Your task to perform on an android device: install app "Google Duo" Image 0: 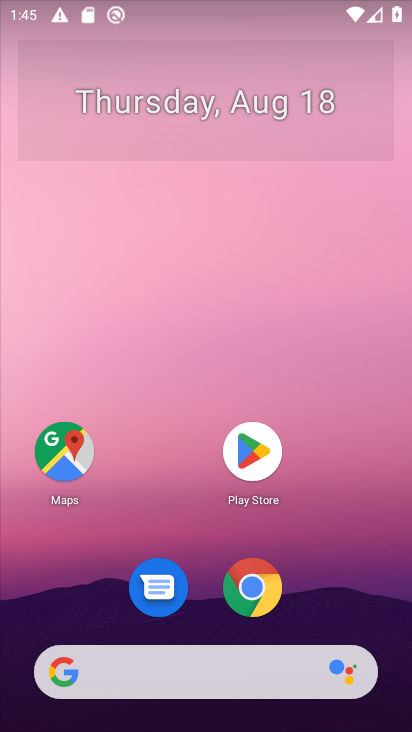
Step 0: click (245, 451)
Your task to perform on an android device: install app "Google Duo" Image 1: 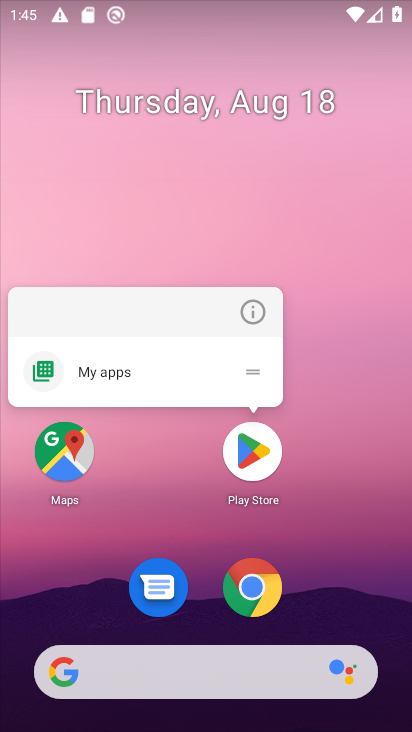
Step 1: click (246, 448)
Your task to perform on an android device: install app "Google Duo" Image 2: 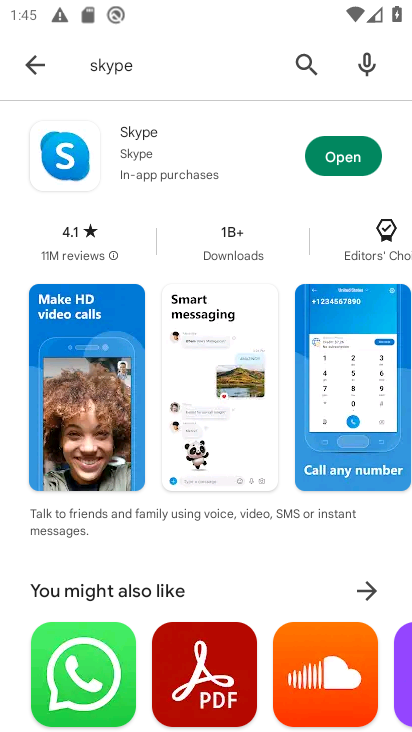
Step 2: click (307, 61)
Your task to perform on an android device: install app "Google Duo" Image 3: 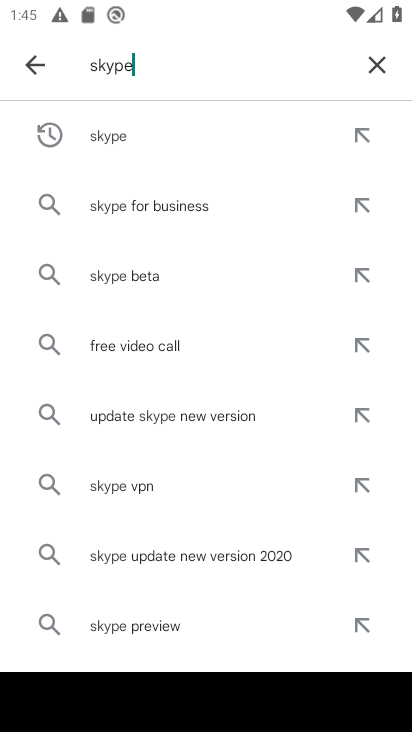
Step 3: click (371, 67)
Your task to perform on an android device: install app "Google Duo" Image 4: 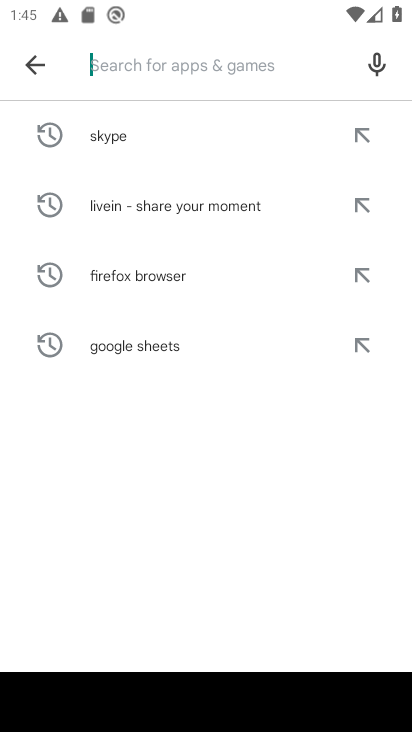
Step 4: type "Google Duo"
Your task to perform on an android device: install app "Google Duo" Image 5: 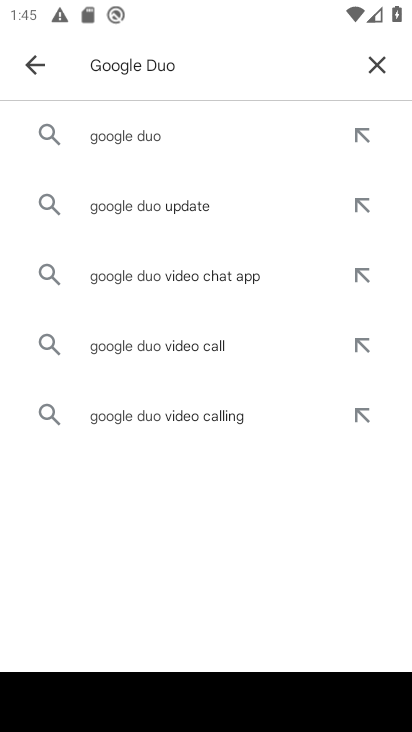
Step 5: click (106, 127)
Your task to perform on an android device: install app "Google Duo" Image 6: 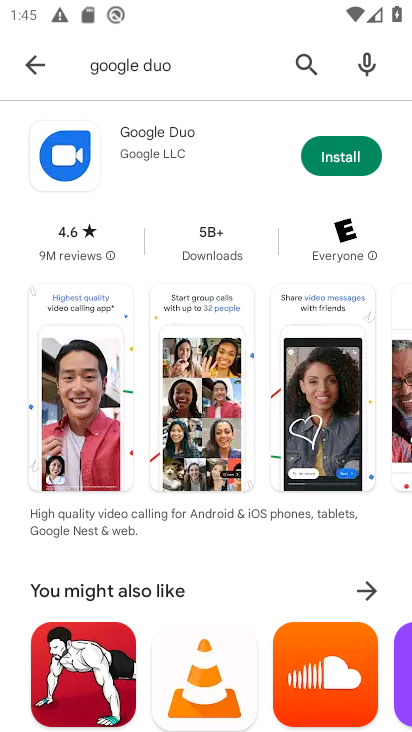
Step 6: click (343, 154)
Your task to perform on an android device: install app "Google Duo" Image 7: 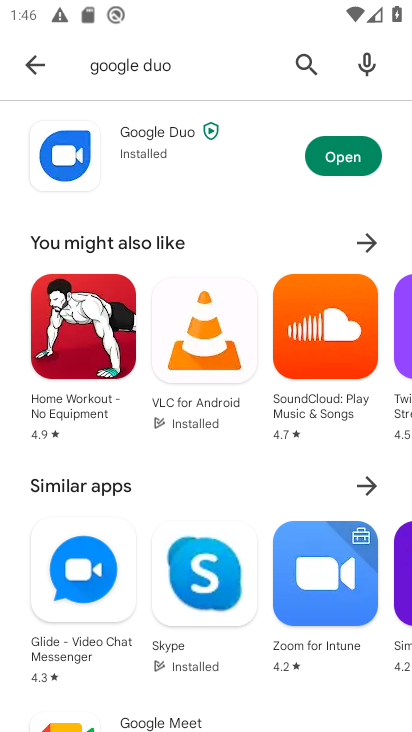
Step 7: task complete